Your task to perform on an android device: open chrome privacy settings Image 0: 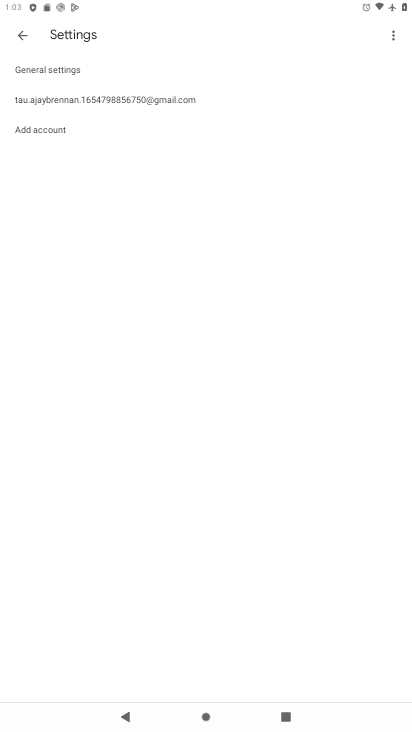
Step 0: press home button
Your task to perform on an android device: open chrome privacy settings Image 1: 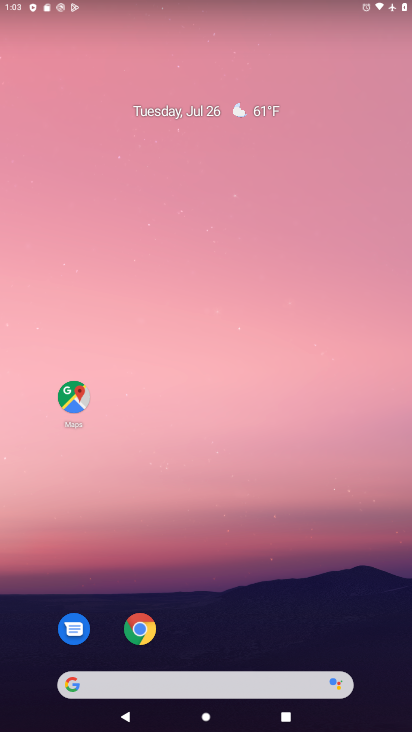
Step 1: drag from (188, 676) to (181, 152)
Your task to perform on an android device: open chrome privacy settings Image 2: 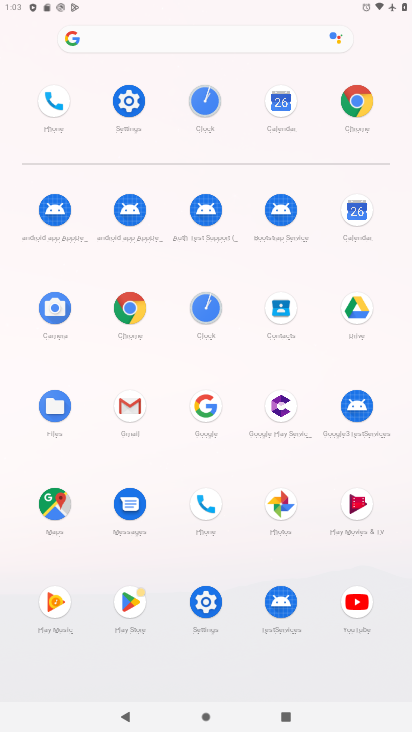
Step 2: click (132, 320)
Your task to perform on an android device: open chrome privacy settings Image 3: 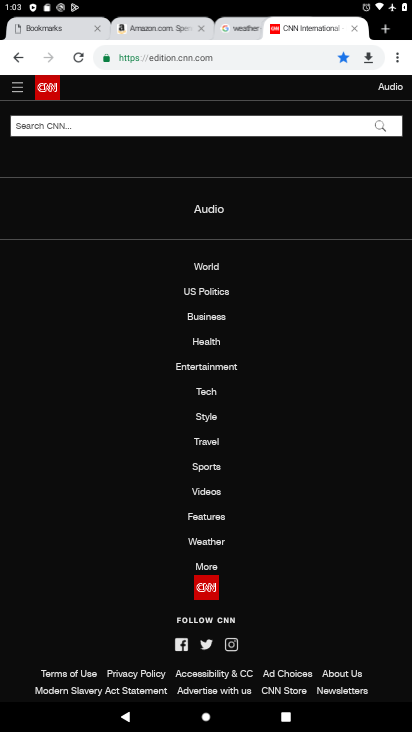
Step 3: click (403, 58)
Your task to perform on an android device: open chrome privacy settings Image 4: 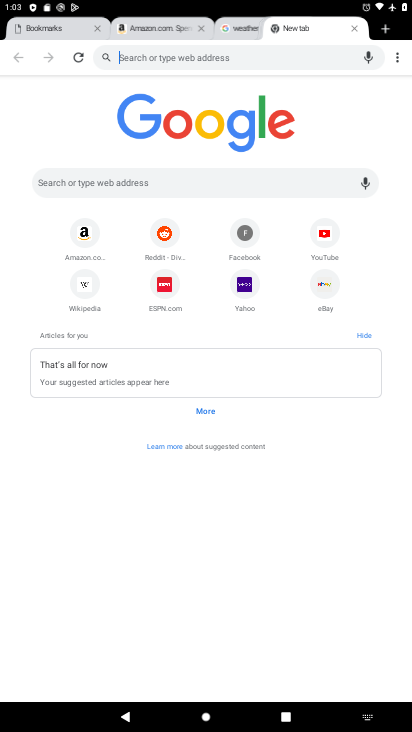
Step 4: click (391, 53)
Your task to perform on an android device: open chrome privacy settings Image 5: 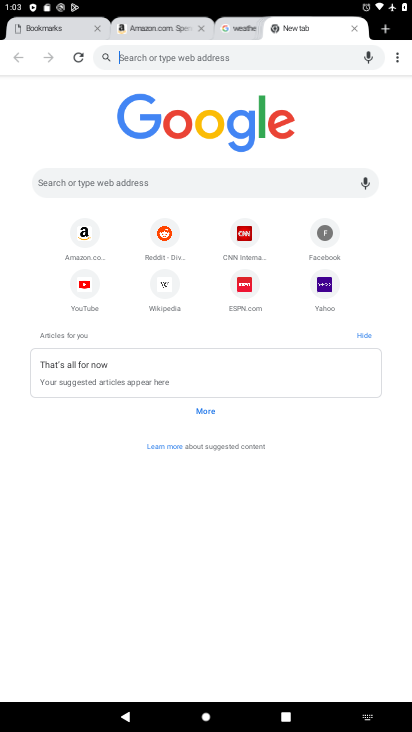
Step 5: drag from (393, 52) to (281, 254)
Your task to perform on an android device: open chrome privacy settings Image 6: 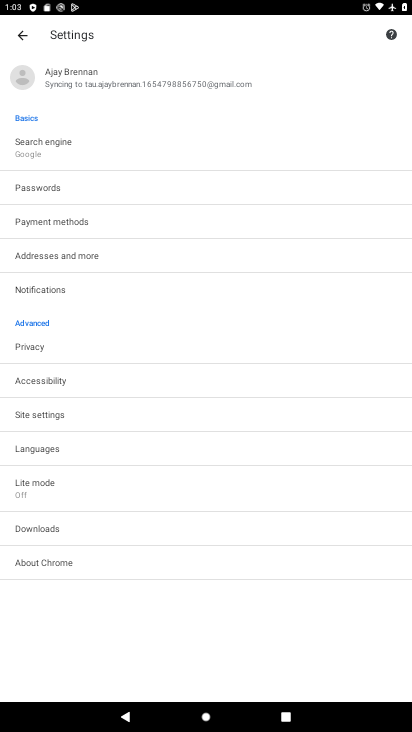
Step 6: click (32, 337)
Your task to perform on an android device: open chrome privacy settings Image 7: 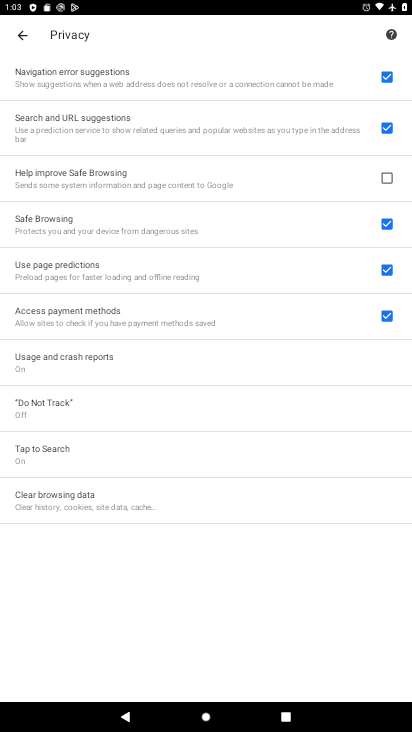
Step 7: task complete